Your task to perform on an android device: Open Google Image 0: 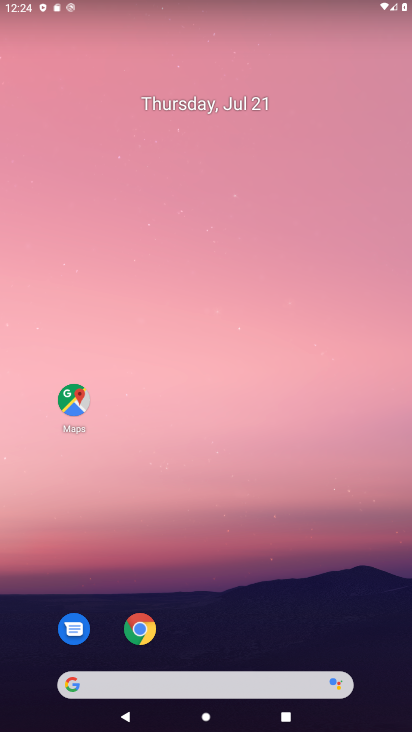
Step 0: drag from (291, 638) to (252, 351)
Your task to perform on an android device: Open Google Image 1: 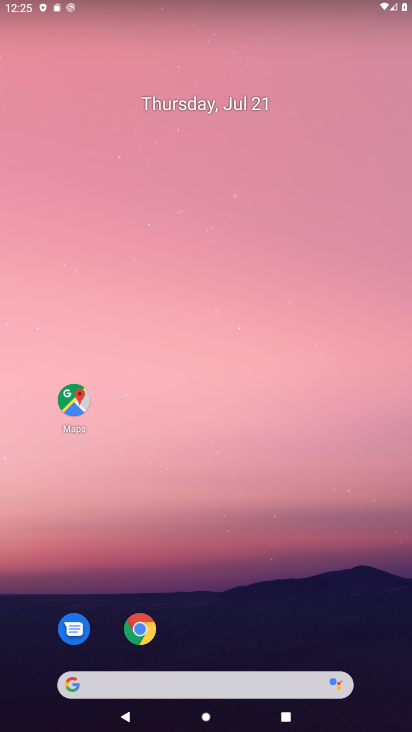
Step 1: drag from (288, 630) to (238, 333)
Your task to perform on an android device: Open Google Image 2: 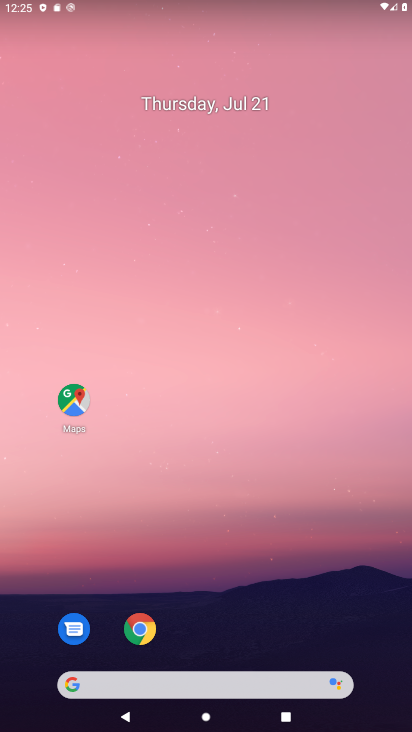
Step 2: drag from (394, 664) to (206, 145)
Your task to perform on an android device: Open Google Image 3: 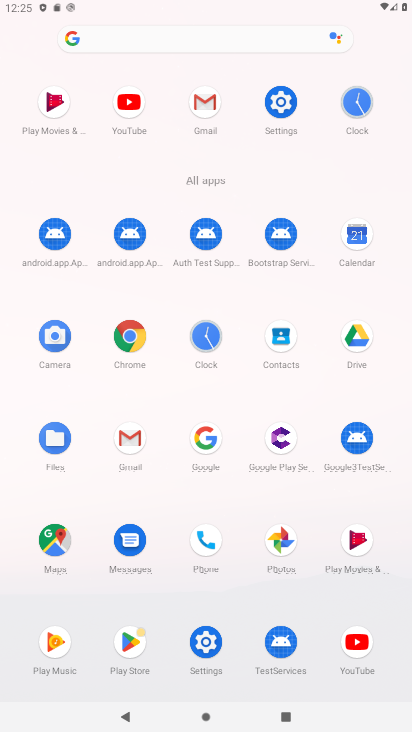
Step 3: click (214, 446)
Your task to perform on an android device: Open Google Image 4: 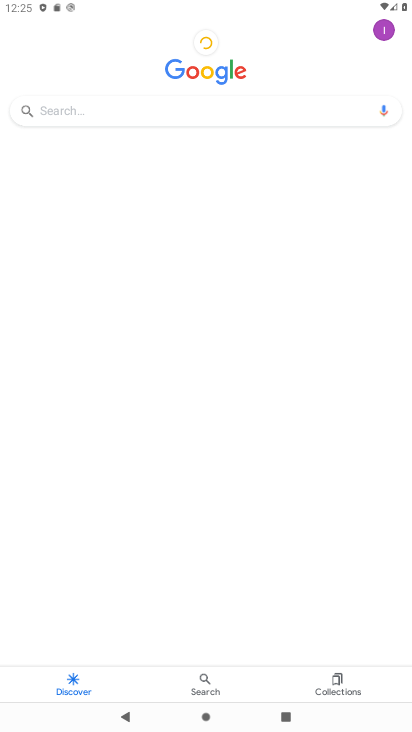
Step 4: task complete